Your task to perform on an android device: Go to Yahoo.com Image 0: 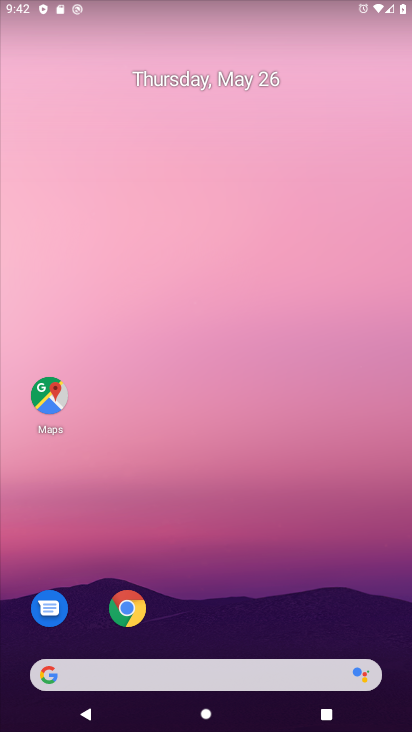
Step 0: click (127, 604)
Your task to perform on an android device: Go to Yahoo.com Image 1: 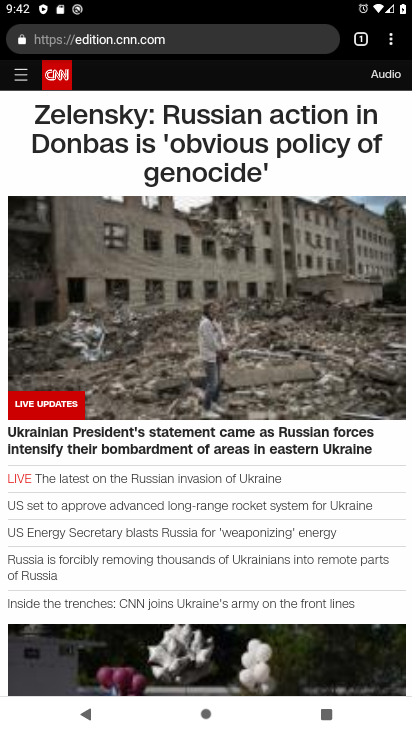
Step 1: click (356, 33)
Your task to perform on an android device: Go to Yahoo.com Image 2: 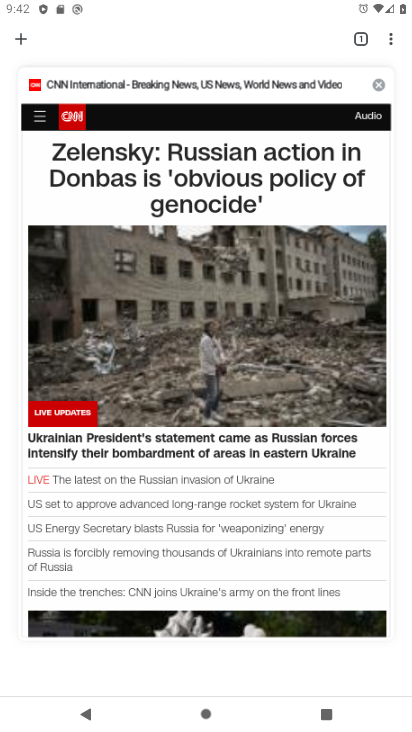
Step 2: click (23, 42)
Your task to perform on an android device: Go to Yahoo.com Image 3: 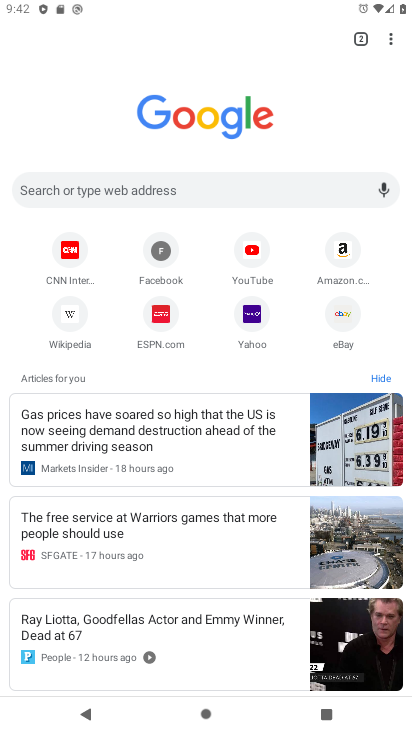
Step 3: click (257, 312)
Your task to perform on an android device: Go to Yahoo.com Image 4: 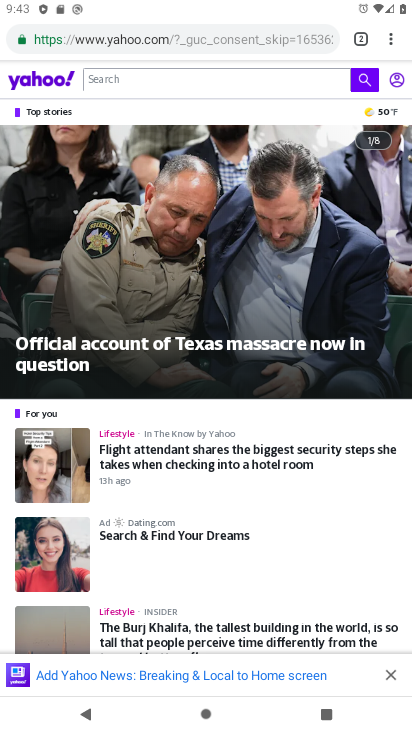
Step 4: task complete